Your task to perform on an android device: toggle translation in the chrome app Image 0: 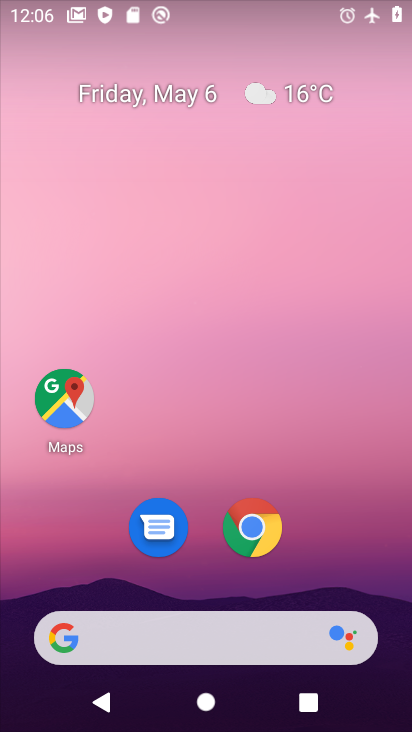
Step 0: drag from (339, 572) to (283, 350)
Your task to perform on an android device: toggle translation in the chrome app Image 1: 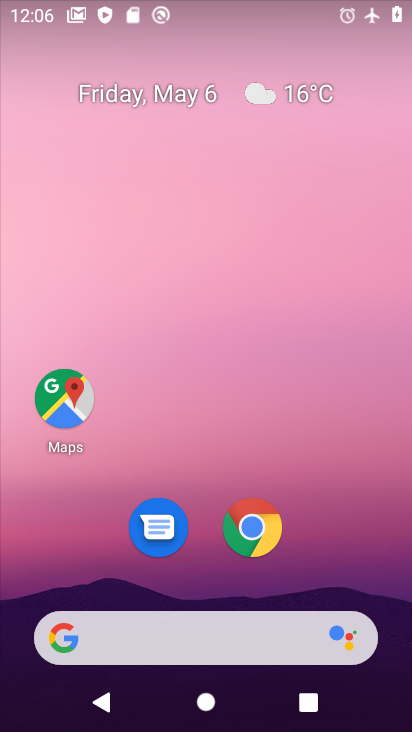
Step 1: click (260, 542)
Your task to perform on an android device: toggle translation in the chrome app Image 2: 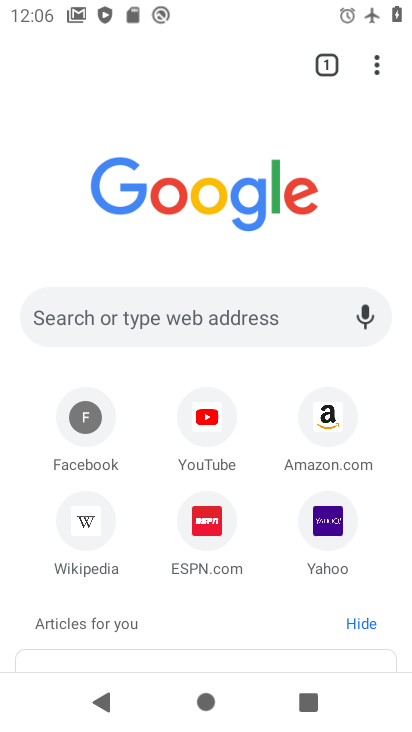
Step 2: drag from (378, 63) to (145, 554)
Your task to perform on an android device: toggle translation in the chrome app Image 3: 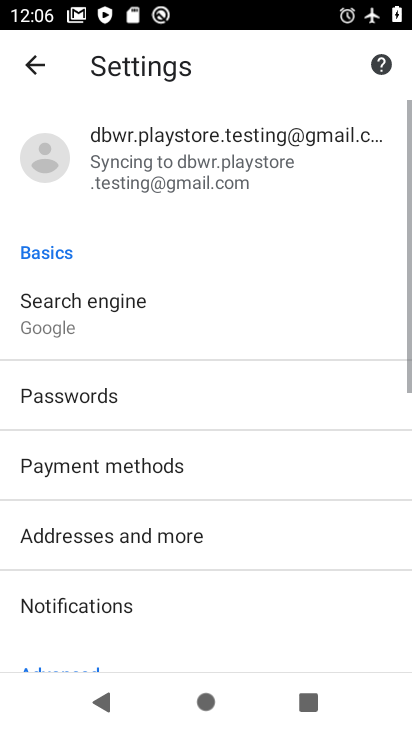
Step 3: drag from (142, 619) to (156, 166)
Your task to perform on an android device: toggle translation in the chrome app Image 4: 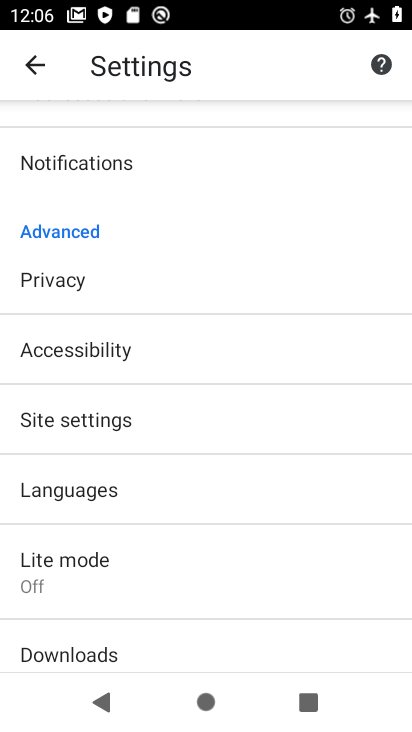
Step 4: click (53, 493)
Your task to perform on an android device: toggle translation in the chrome app Image 5: 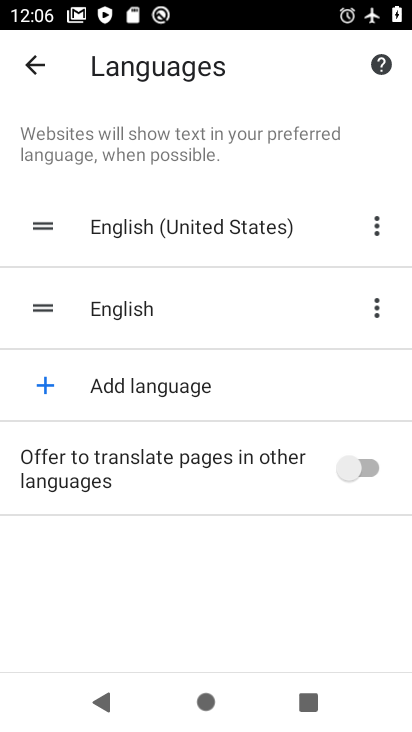
Step 5: click (351, 459)
Your task to perform on an android device: toggle translation in the chrome app Image 6: 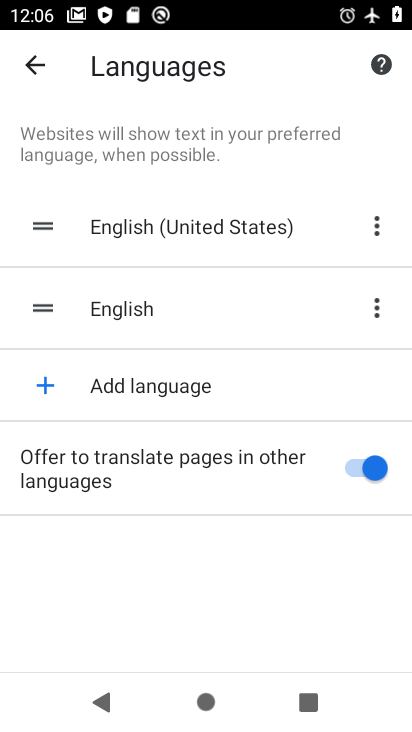
Step 6: task complete